Your task to perform on an android device: Add "bose soundsport free" to the cart on walmart, then select checkout. Image 0: 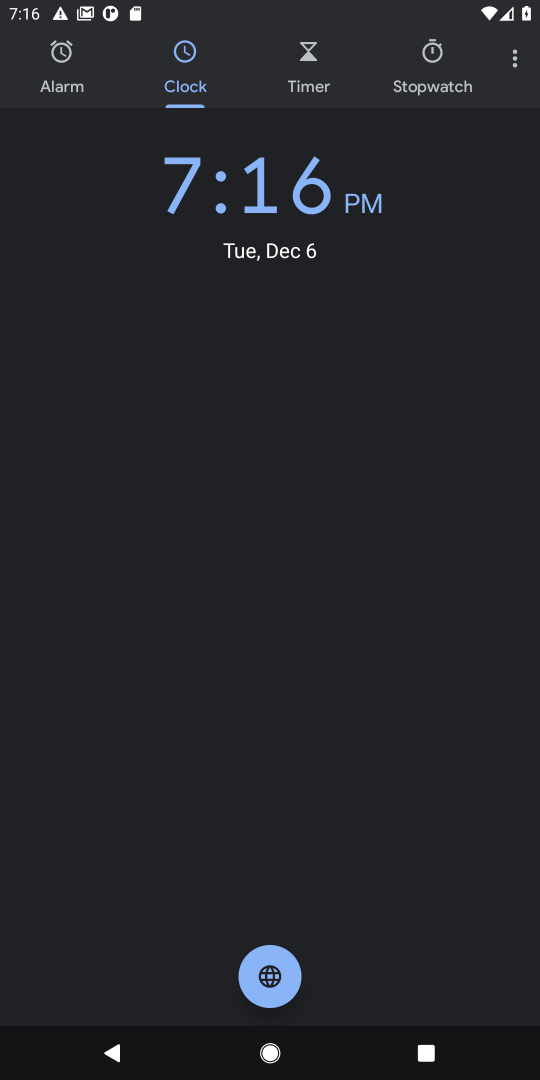
Step 0: press home button
Your task to perform on an android device: Add "bose soundsport free" to the cart on walmart, then select checkout. Image 1: 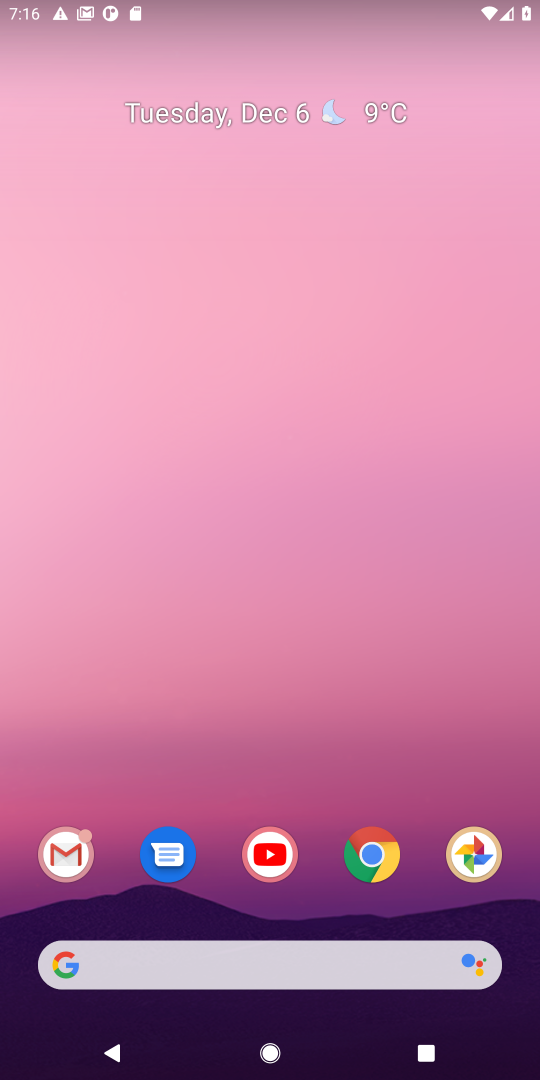
Step 1: click (383, 846)
Your task to perform on an android device: Add "bose soundsport free" to the cart on walmart, then select checkout. Image 2: 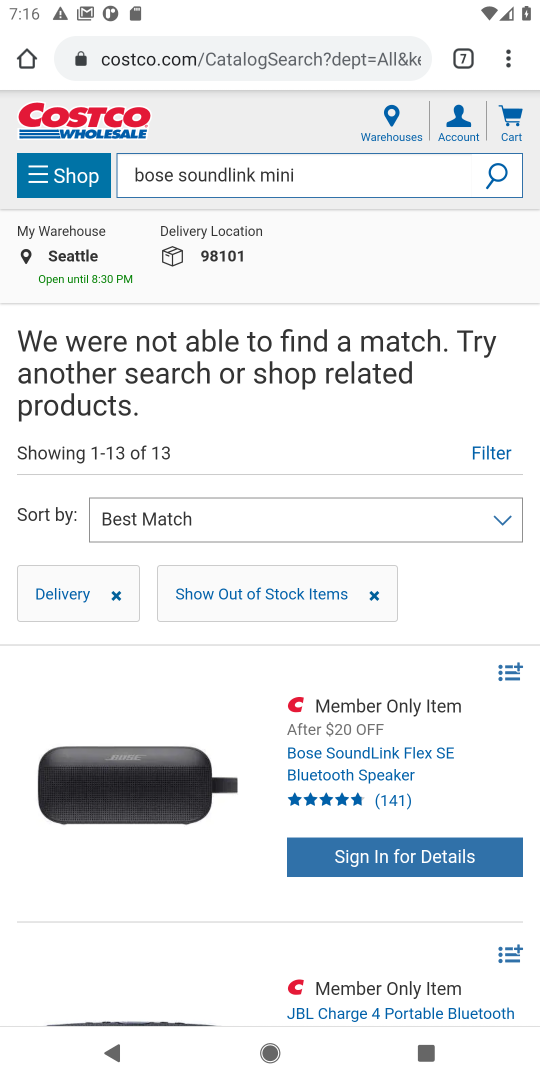
Step 2: click (471, 52)
Your task to perform on an android device: Add "bose soundsport free" to the cart on walmart, then select checkout. Image 3: 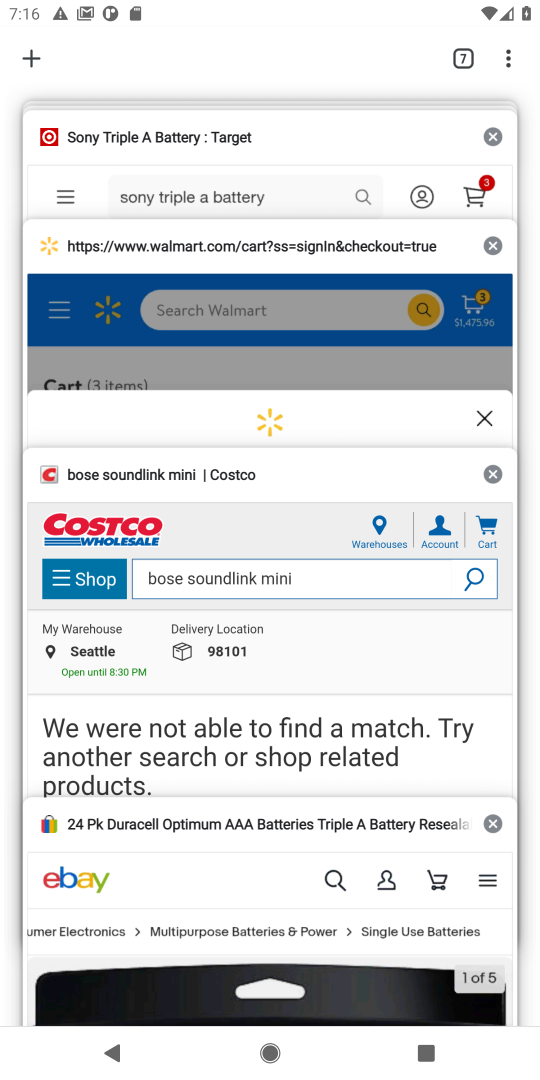
Step 3: click (268, 314)
Your task to perform on an android device: Add "bose soundsport free" to the cart on walmart, then select checkout. Image 4: 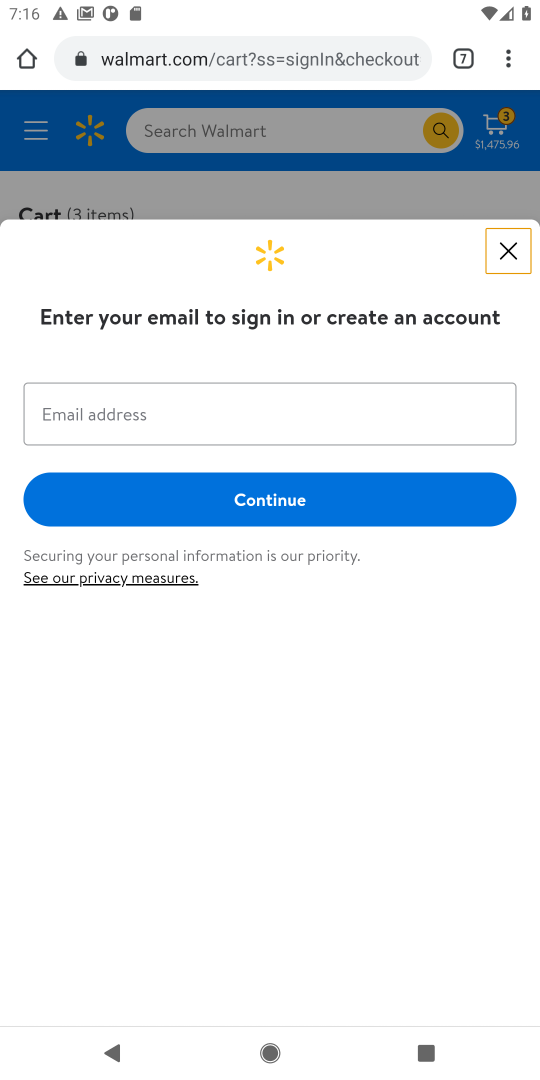
Step 4: click (517, 249)
Your task to perform on an android device: Add "bose soundsport free" to the cart on walmart, then select checkout. Image 5: 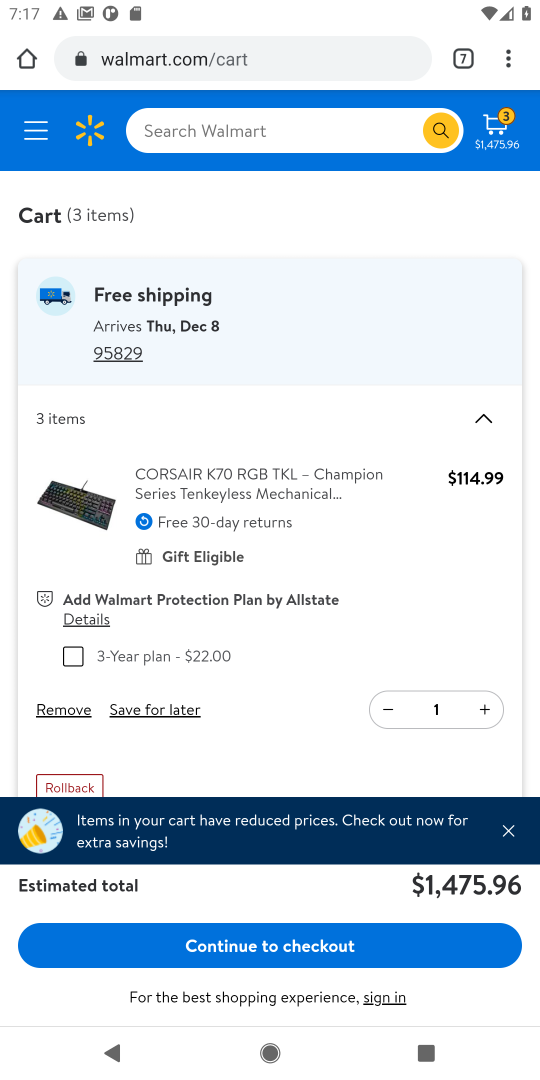
Step 5: click (315, 126)
Your task to perform on an android device: Add "bose soundsport free" to the cart on walmart, then select checkout. Image 6: 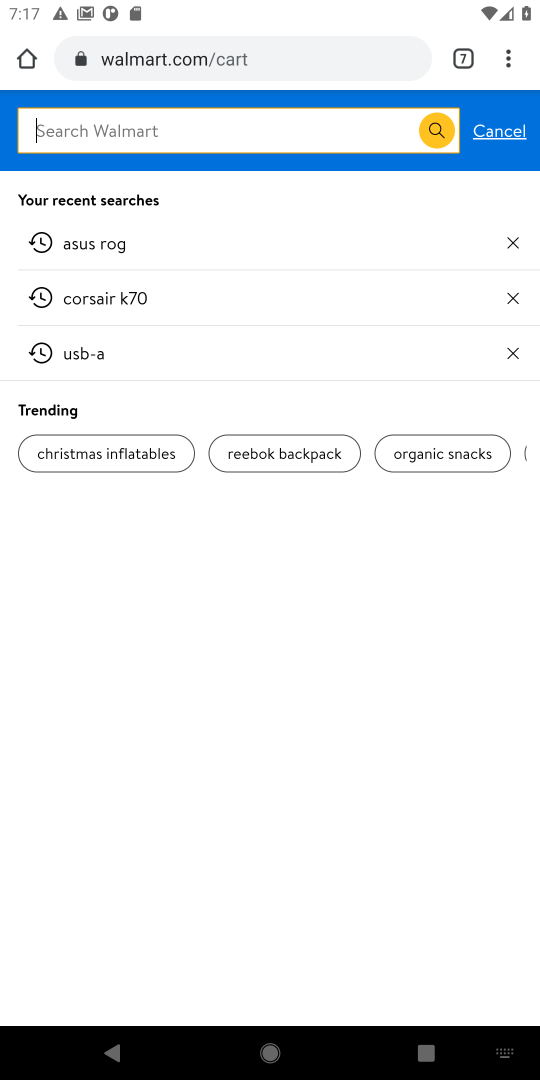
Step 6: type "bose soundsport free"
Your task to perform on an android device: Add "bose soundsport free" to the cart on walmart, then select checkout. Image 7: 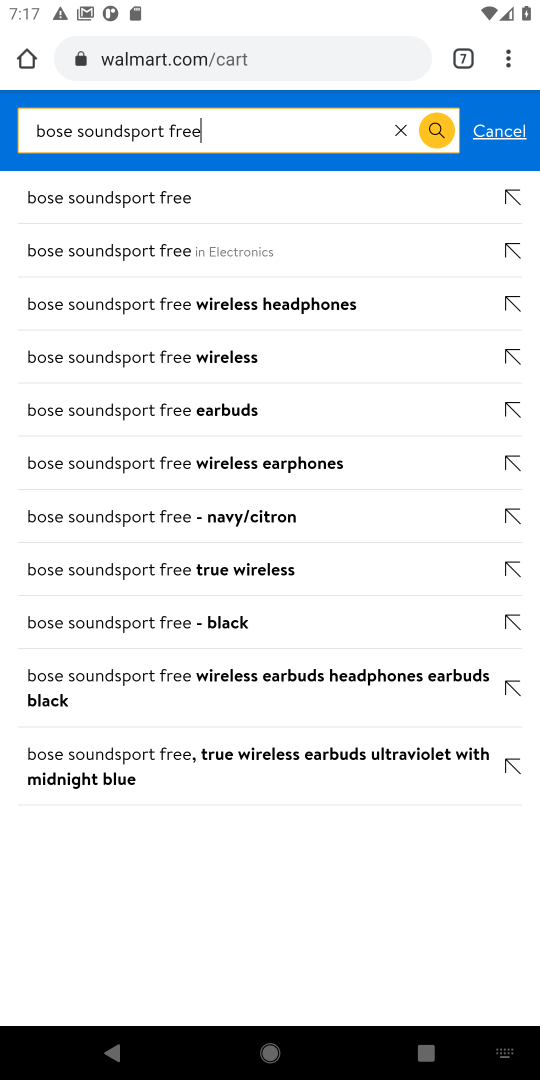
Step 7: click (157, 246)
Your task to perform on an android device: Add "bose soundsport free" to the cart on walmart, then select checkout. Image 8: 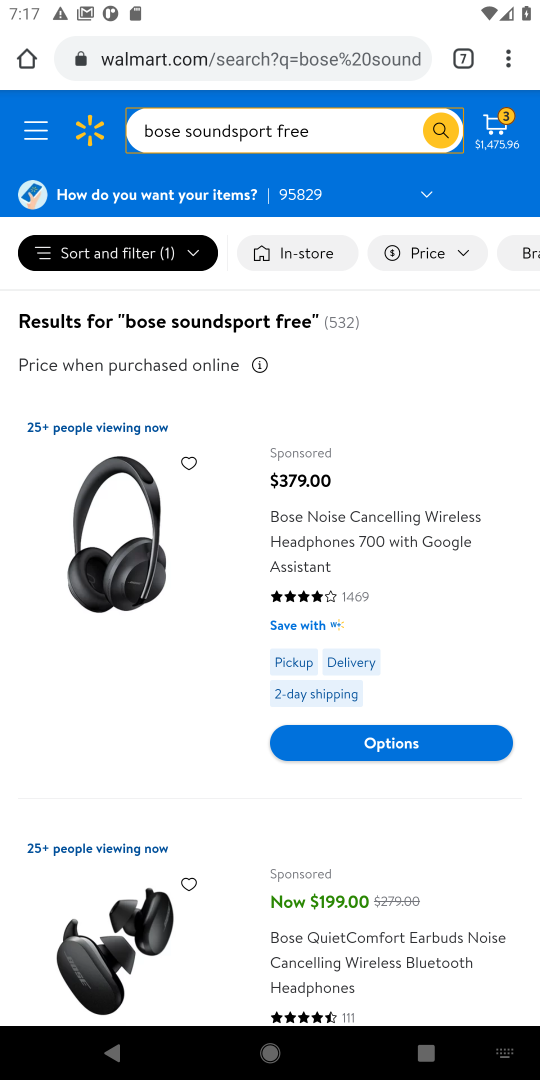
Step 8: task complete